Your task to perform on an android device: Open the calendar app, open the side menu, and click the "Day" option Image 0: 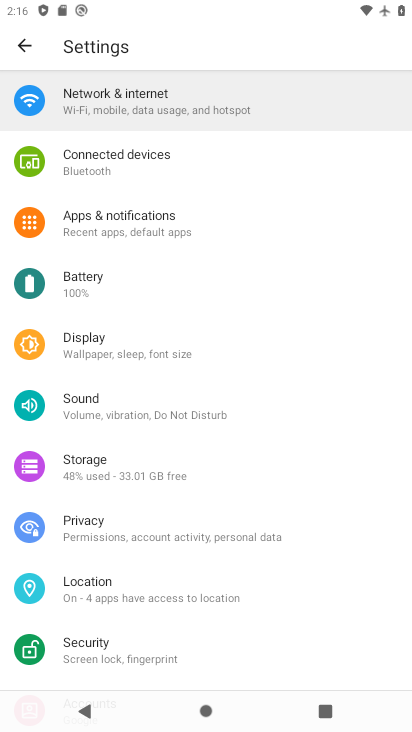
Step 0: press home button
Your task to perform on an android device: Open the calendar app, open the side menu, and click the "Day" option Image 1: 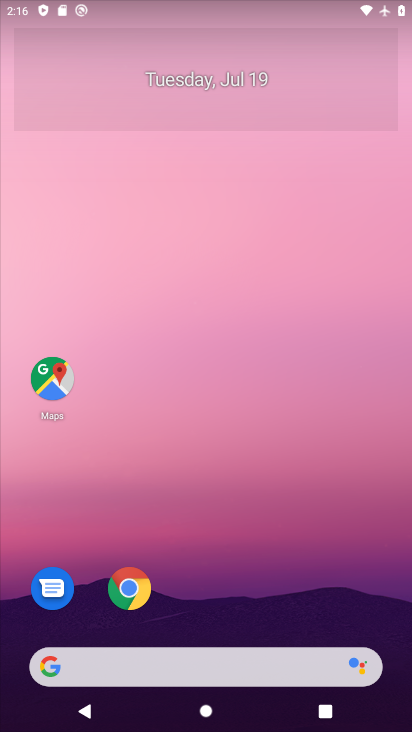
Step 1: drag from (259, 626) to (307, 88)
Your task to perform on an android device: Open the calendar app, open the side menu, and click the "Day" option Image 2: 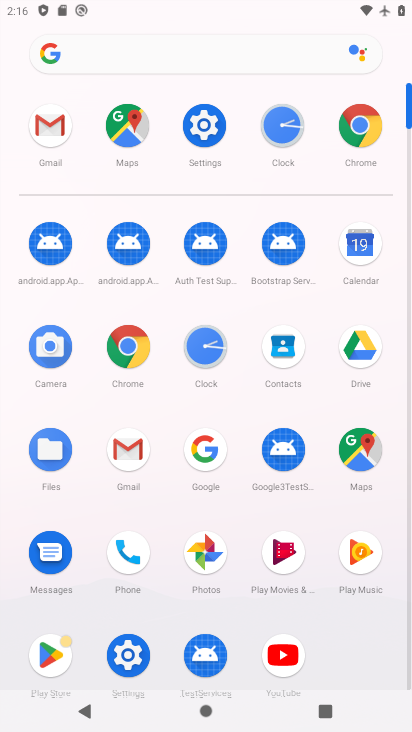
Step 2: click (347, 253)
Your task to perform on an android device: Open the calendar app, open the side menu, and click the "Day" option Image 3: 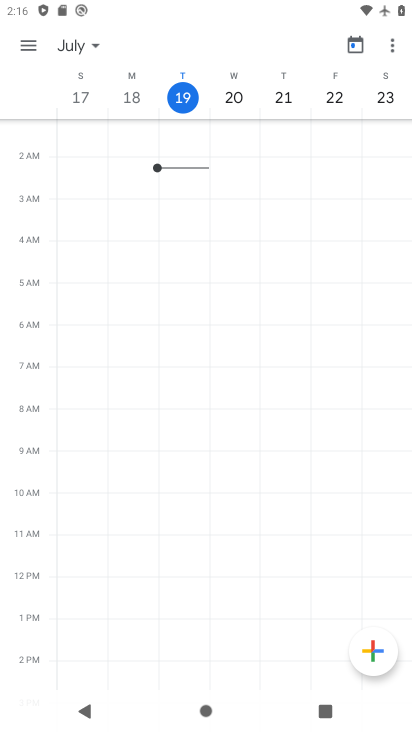
Step 3: click (27, 37)
Your task to perform on an android device: Open the calendar app, open the side menu, and click the "Day" option Image 4: 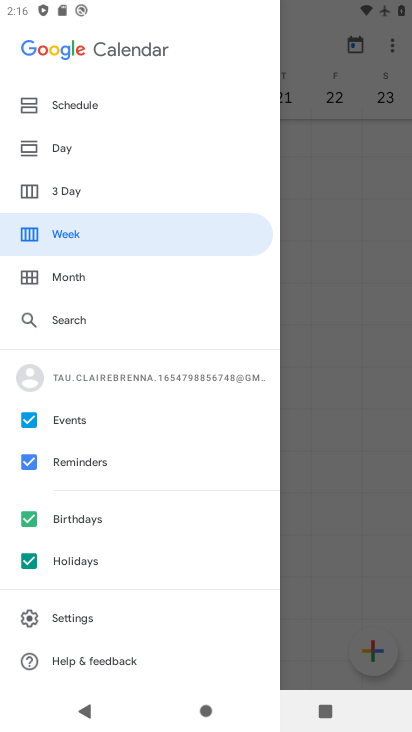
Step 4: click (64, 148)
Your task to perform on an android device: Open the calendar app, open the side menu, and click the "Day" option Image 5: 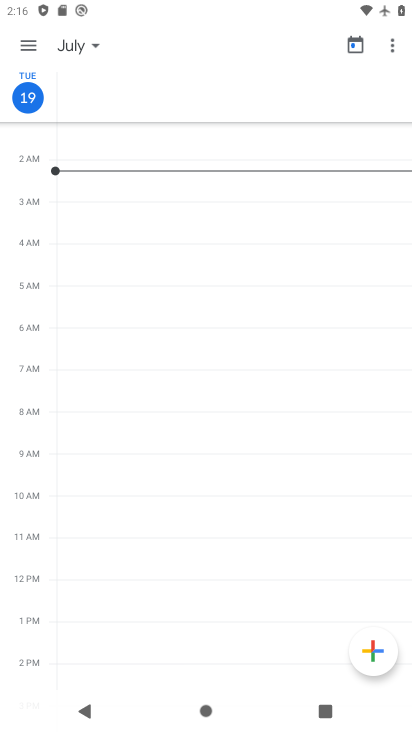
Step 5: task complete